Your task to perform on an android device: turn on location history Image 0: 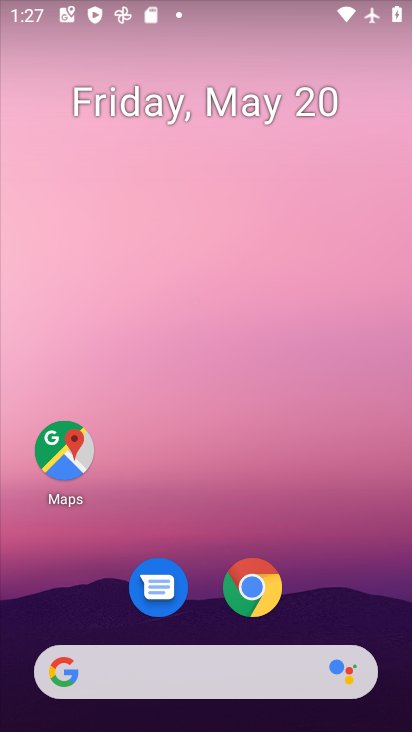
Step 0: drag from (271, 500) to (242, 3)
Your task to perform on an android device: turn on location history Image 1: 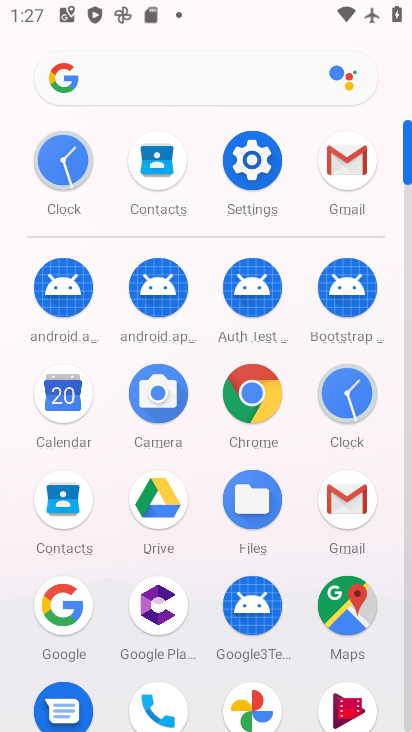
Step 1: click (247, 156)
Your task to perform on an android device: turn on location history Image 2: 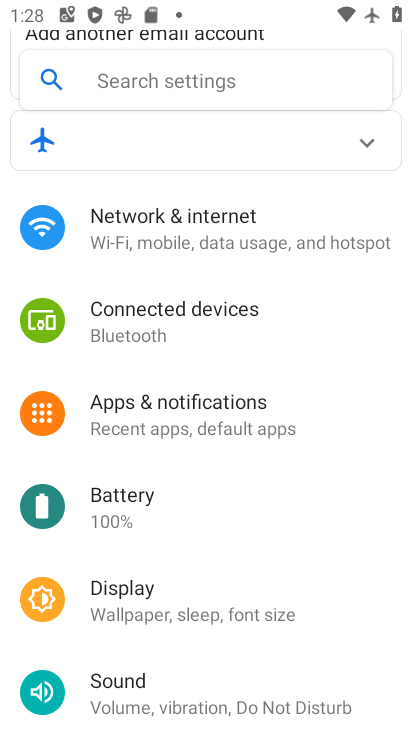
Step 2: drag from (240, 519) to (202, 110)
Your task to perform on an android device: turn on location history Image 3: 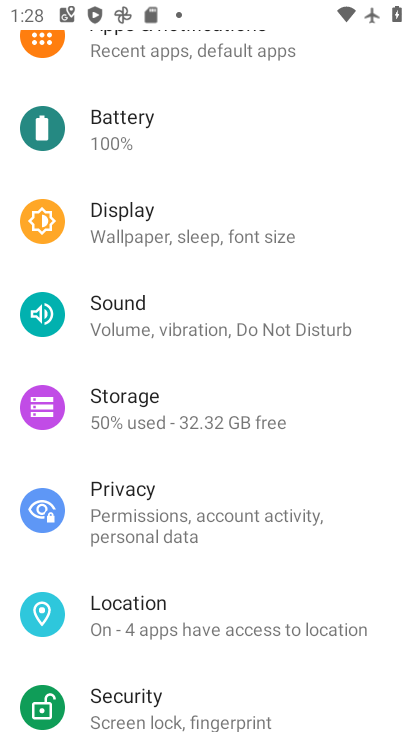
Step 3: click (136, 605)
Your task to perform on an android device: turn on location history Image 4: 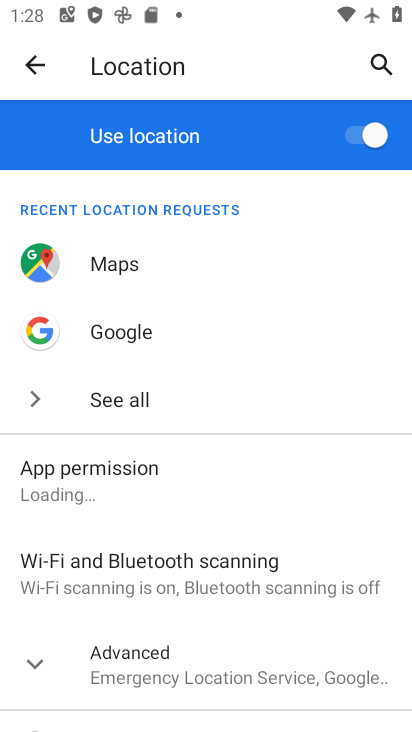
Step 4: drag from (212, 377) to (188, 123)
Your task to perform on an android device: turn on location history Image 5: 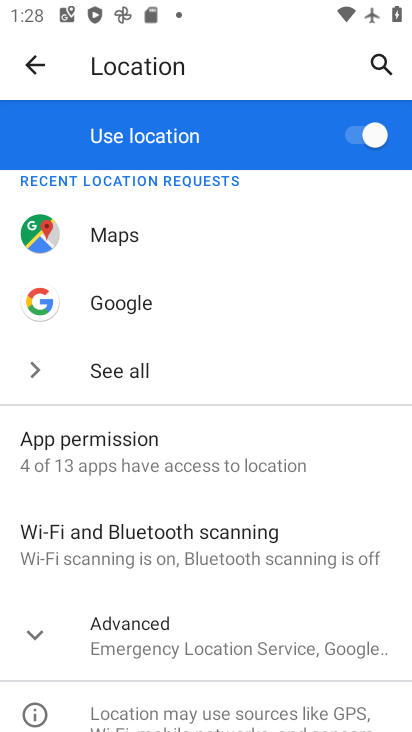
Step 5: click (48, 628)
Your task to perform on an android device: turn on location history Image 6: 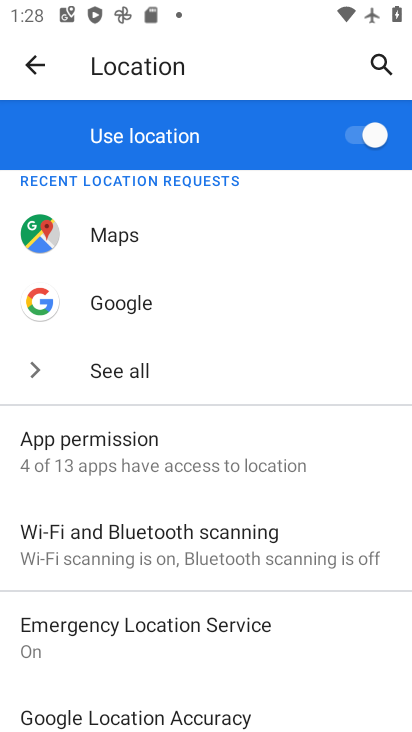
Step 6: drag from (279, 633) to (243, 312)
Your task to perform on an android device: turn on location history Image 7: 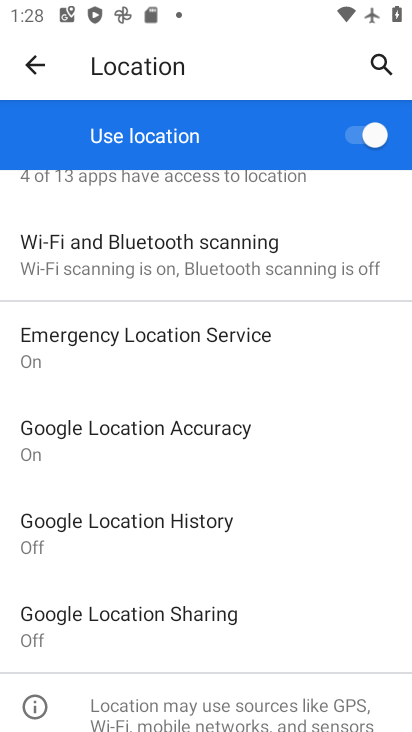
Step 7: click (138, 517)
Your task to perform on an android device: turn on location history Image 8: 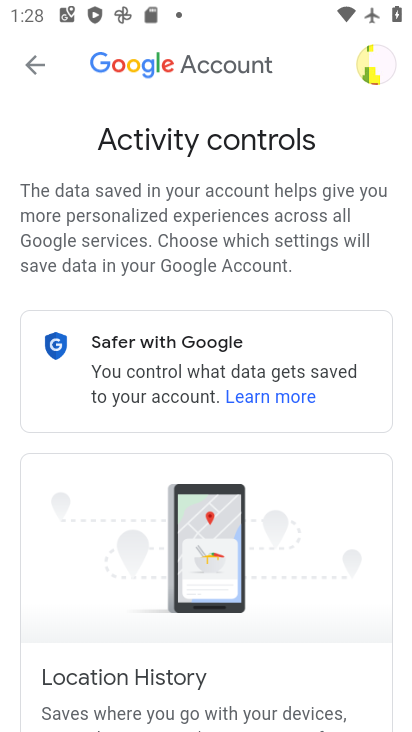
Step 8: task complete